Your task to perform on an android device: open app "YouTube Kids" Image 0: 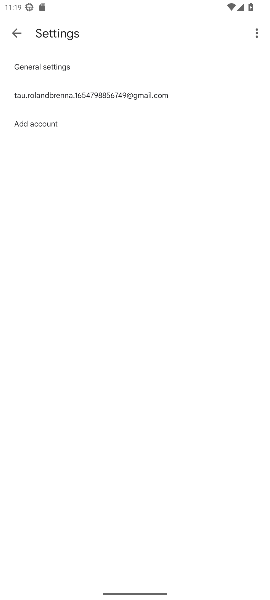
Step 0: press home button
Your task to perform on an android device: open app "YouTube Kids" Image 1: 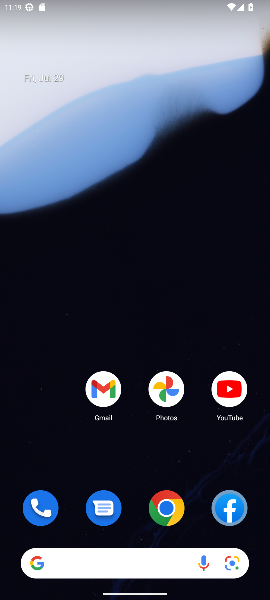
Step 1: drag from (175, 550) to (203, 30)
Your task to perform on an android device: open app "YouTube Kids" Image 2: 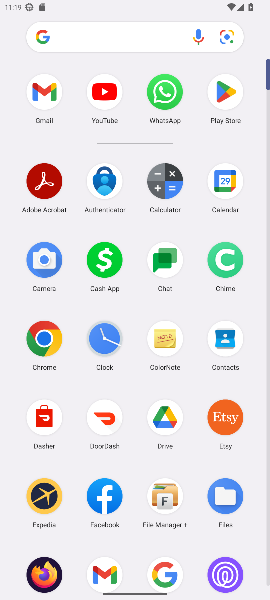
Step 2: click (226, 79)
Your task to perform on an android device: open app "YouTube Kids" Image 3: 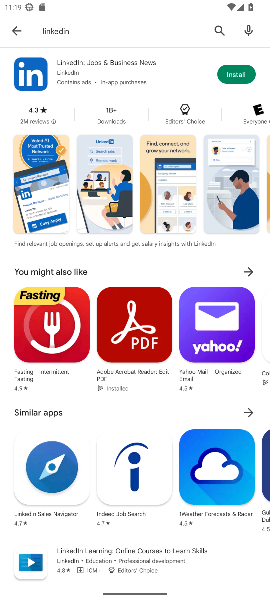
Step 3: click (220, 28)
Your task to perform on an android device: open app "YouTube Kids" Image 4: 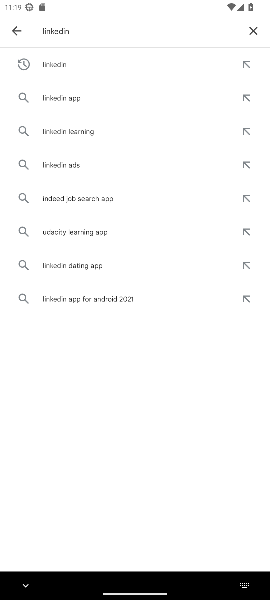
Step 4: click (250, 25)
Your task to perform on an android device: open app "YouTube Kids" Image 5: 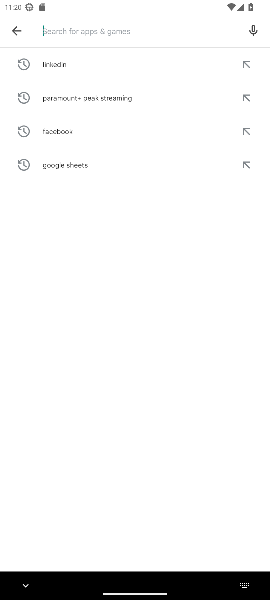
Step 5: type "you tube kids"
Your task to perform on an android device: open app "YouTube Kids" Image 6: 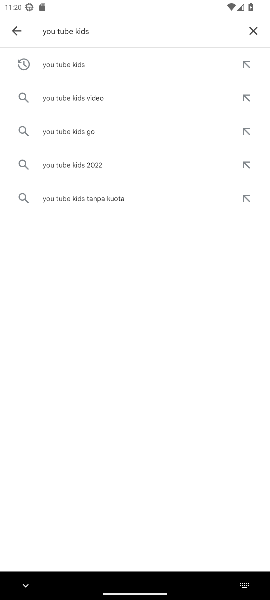
Step 6: click (69, 64)
Your task to perform on an android device: open app "YouTube Kids" Image 7: 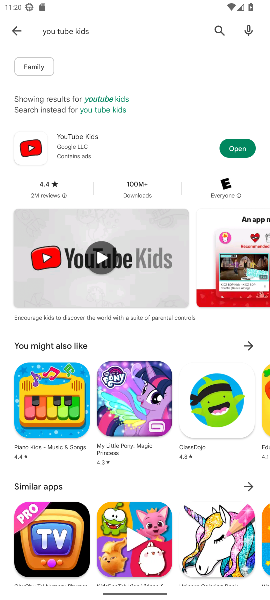
Step 7: click (247, 143)
Your task to perform on an android device: open app "YouTube Kids" Image 8: 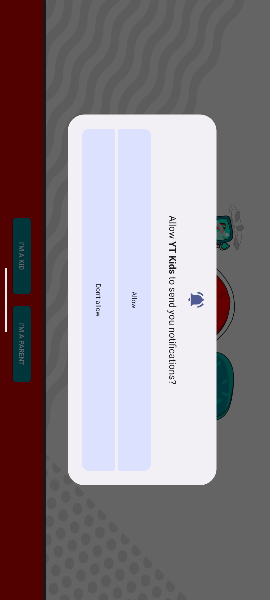
Step 8: task complete